Your task to perform on an android device: turn pop-ups on in chrome Image 0: 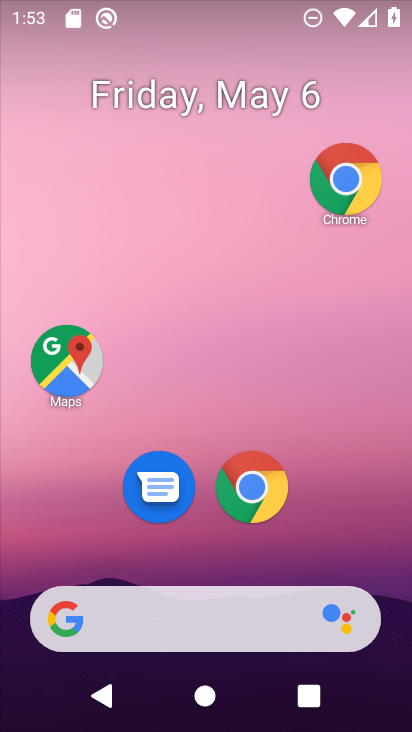
Step 0: click (260, 493)
Your task to perform on an android device: turn pop-ups on in chrome Image 1: 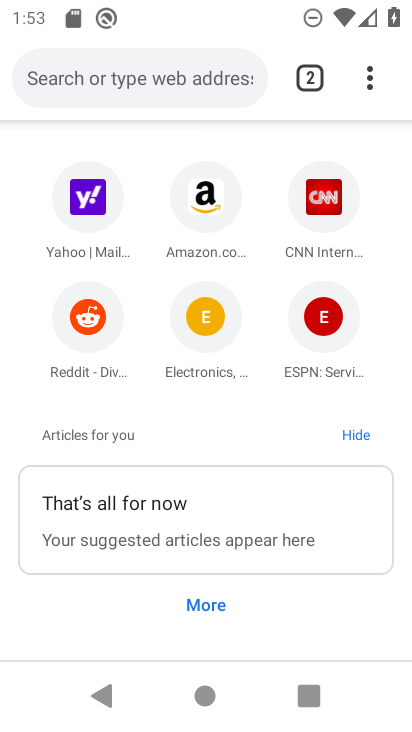
Step 1: click (369, 86)
Your task to perform on an android device: turn pop-ups on in chrome Image 2: 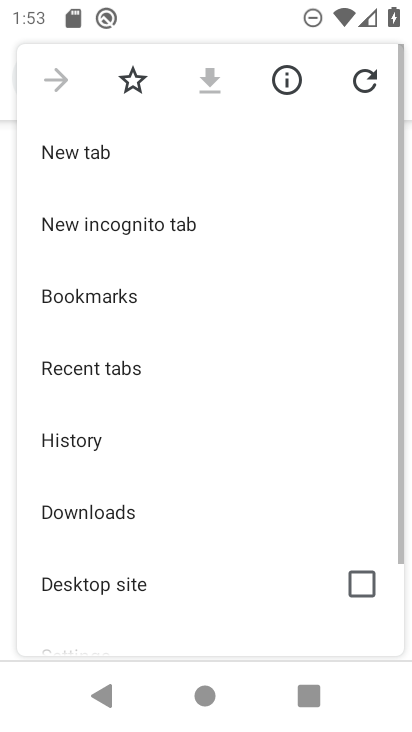
Step 2: drag from (289, 419) to (328, 116)
Your task to perform on an android device: turn pop-ups on in chrome Image 3: 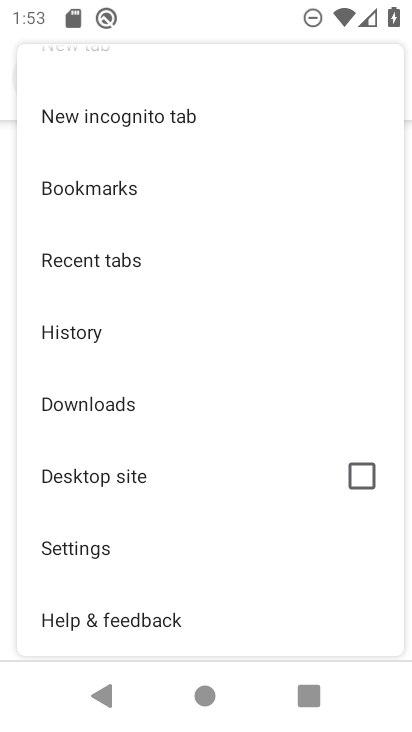
Step 3: click (170, 534)
Your task to perform on an android device: turn pop-ups on in chrome Image 4: 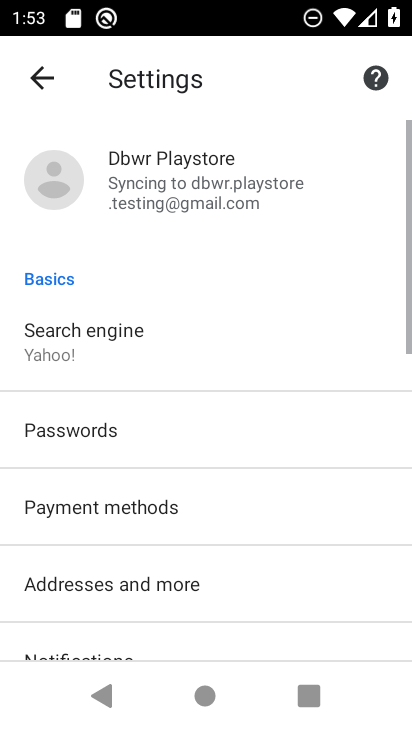
Step 4: drag from (196, 502) to (280, 121)
Your task to perform on an android device: turn pop-ups on in chrome Image 5: 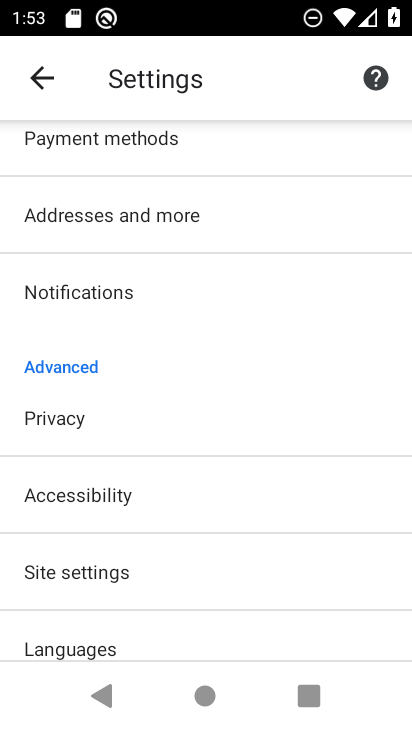
Step 5: click (170, 602)
Your task to perform on an android device: turn pop-ups on in chrome Image 6: 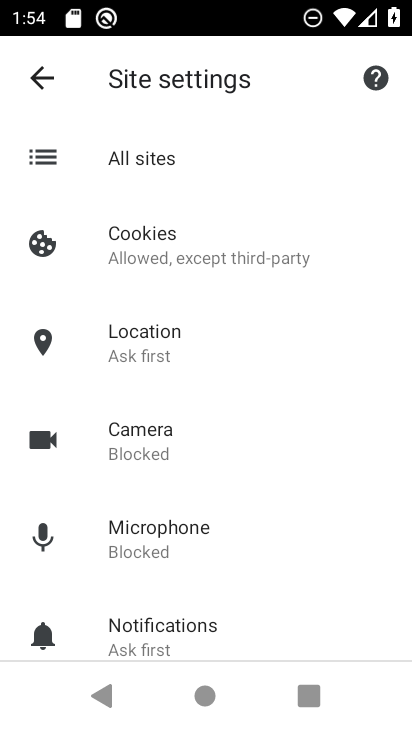
Step 6: drag from (160, 605) to (194, 335)
Your task to perform on an android device: turn pop-ups on in chrome Image 7: 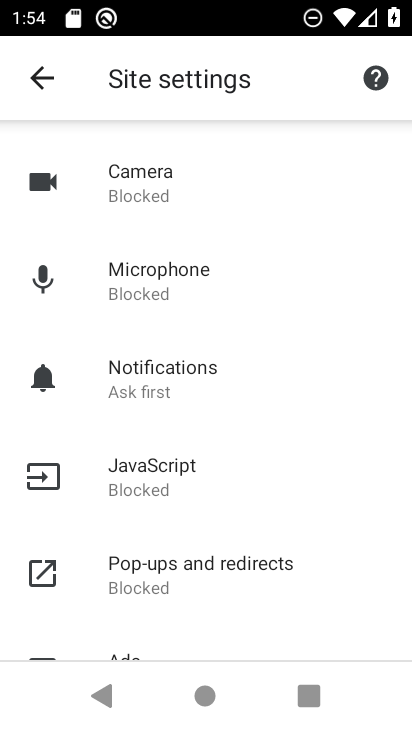
Step 7: click (187, 575)
Your task to perform on an android device: turn pop-ups on in chrome Image 8: 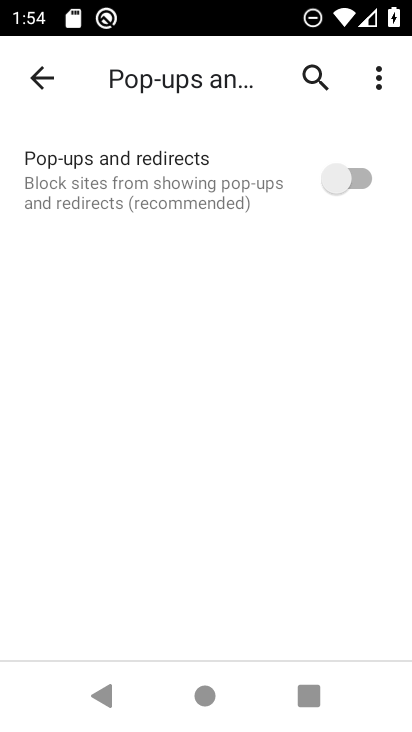
Step 8: task complete